Your task to perform on an android device: turn on sleep mode Image 0: 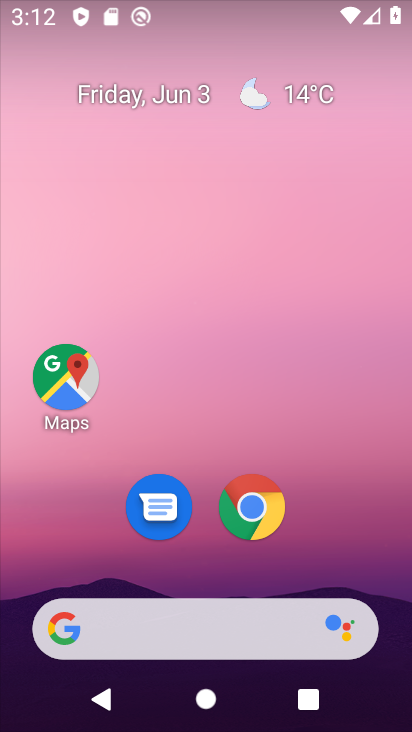
Step 0: click (58, 379)
Your task to perform on an android device: turn on sleep mode Image 1: 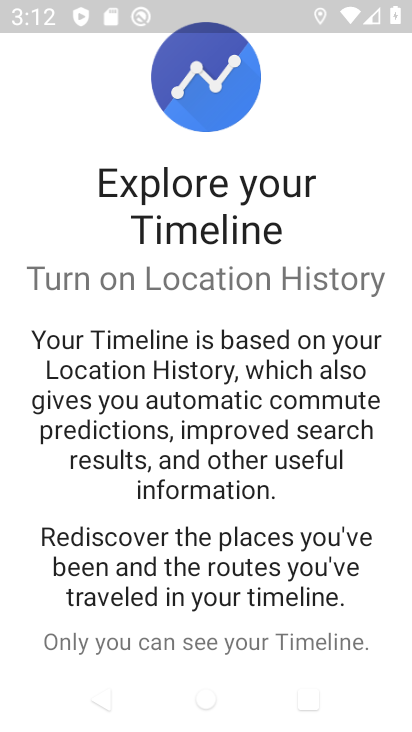
Step 1: task complete